Your task to perform on an android device: turn off javascript in the chrome app Image 0: 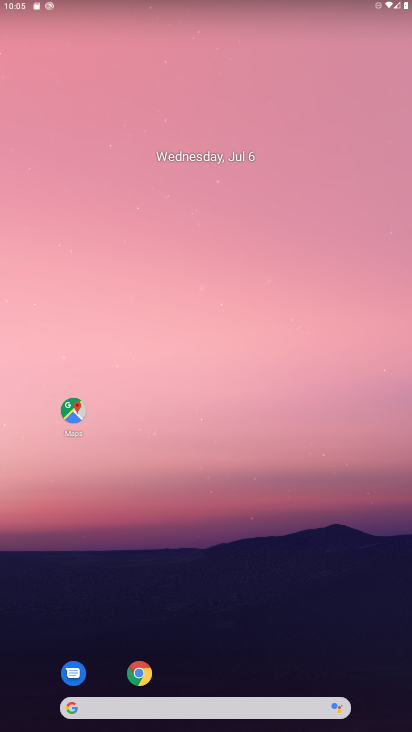
Step 0: press home button
Your task to perform on an android device: turn off javascript in the chrome app Image 1: 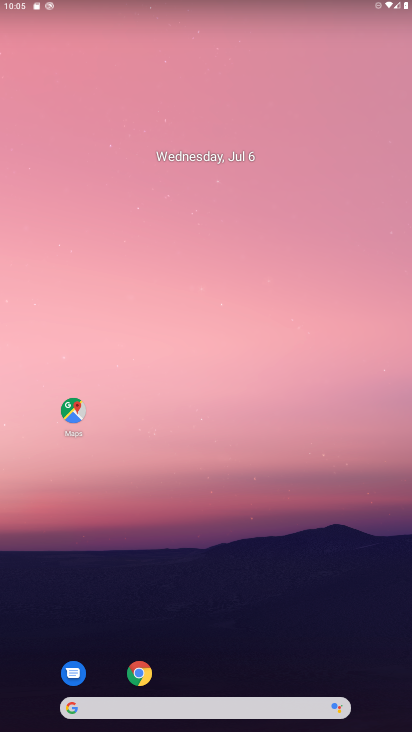
Step 1: click (134, 664)
Your task to perform on an android device: turn off javascript in the chrome app Image 2: 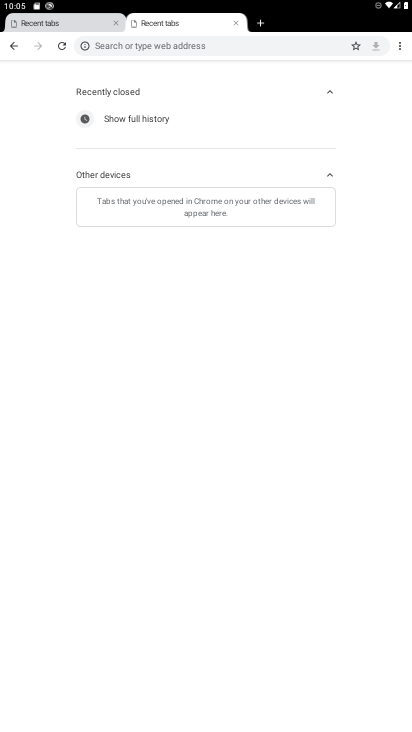
Step 2: click (408, 48)
Your task to perform on an android device: turn off javascript in the chrome app Image 3: 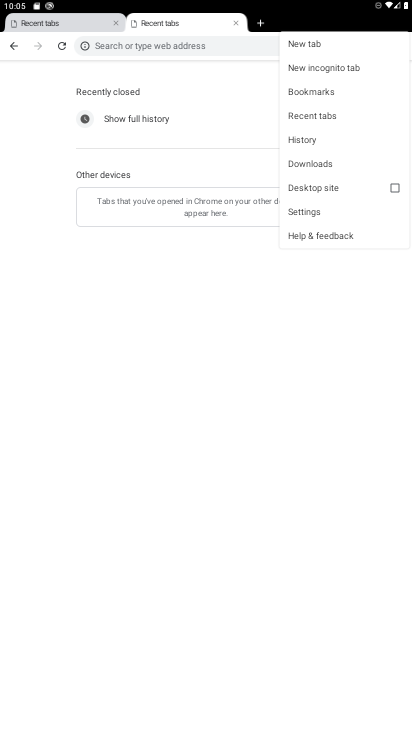
Step 3: click (292, 208)
Your task to perform on an android device: turn off javascript in the chrome app Image 4: 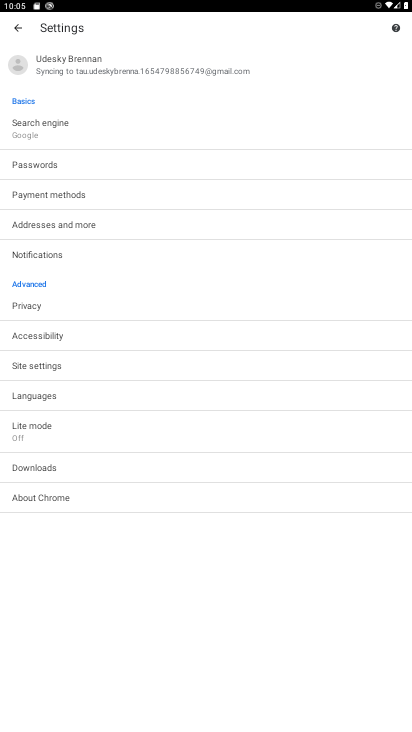
Step 4: click (96, 363)
Your task to perform on an android device: turn off javascript in the chrome app Image 5: 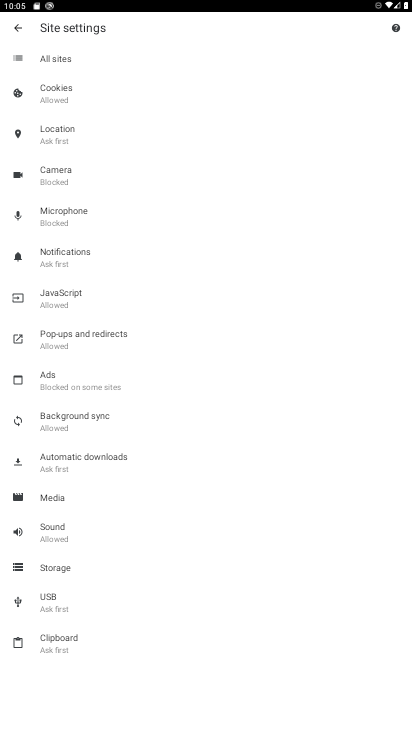
Step 5: click (62, 304)
Your task to perform on an android device: turn off javascript in the chrome app Image 6: 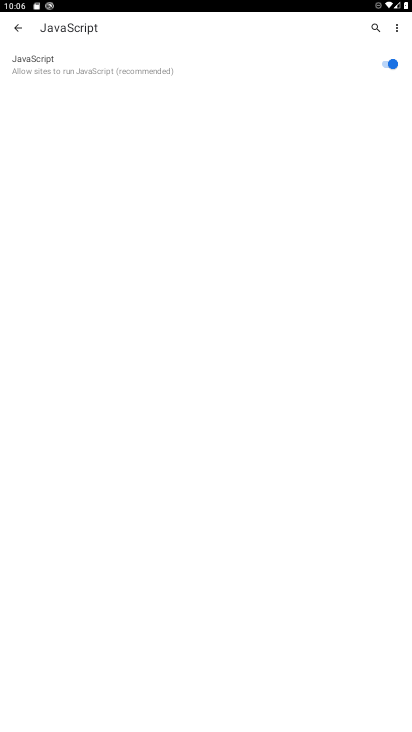
Step 6: click (384, 69)
Your task to perform on an android device: turn off javascript in the chrome app Image 7: 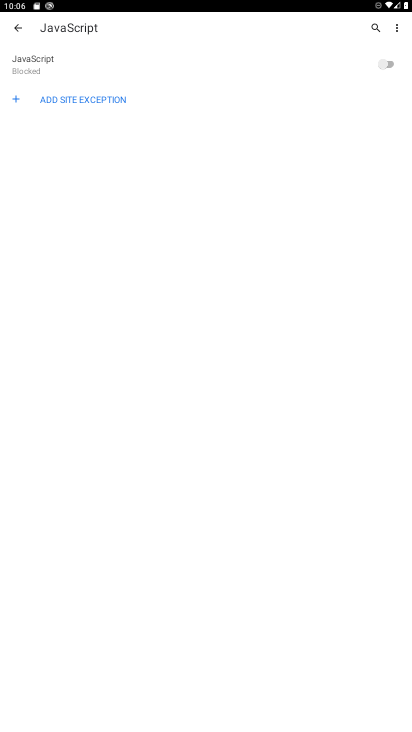
Step 7: task complete